Your task to perform on an android device: visit the assistant section in the google photos Image 0: 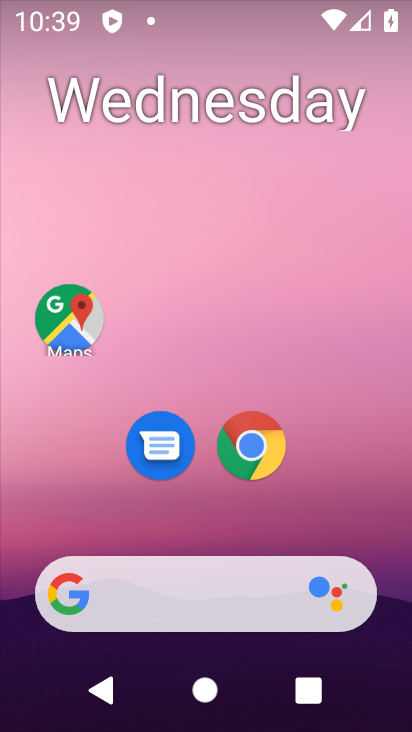
Step 0: press home button
Your task to perform on an android device: visit the assistant section in the google photos Image 1: 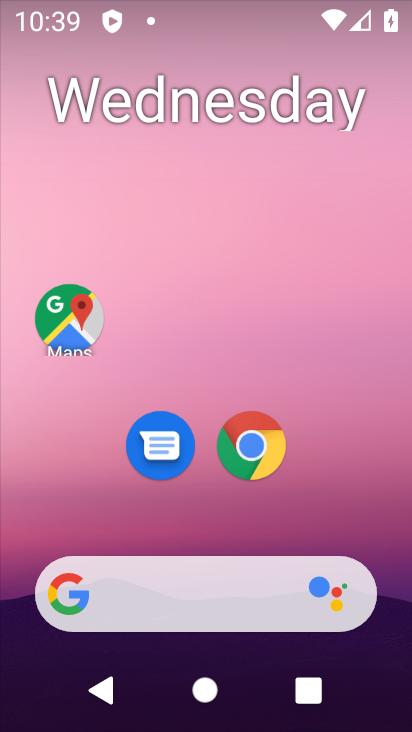
Step 1: drag from (321, 484) to (298, 120)
Your task to perform on an android device: visit the assistant section in the google photos Image 2: 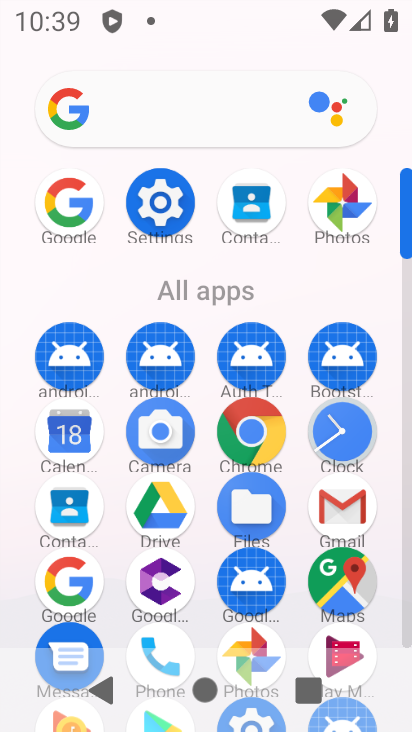
Step 2: click (327, 213)
Your task to perform on an android device: visit the assistant section in the google photos Image 3: 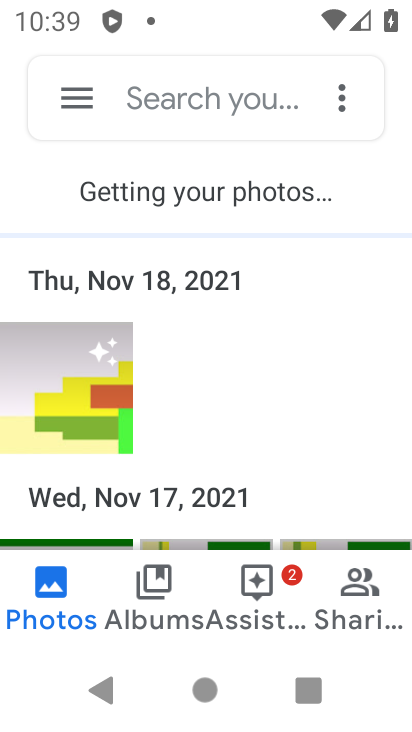
Step 3: click (270, 578)
Your task to perform on an android device: visit the assistant section in the google photos Image 4: 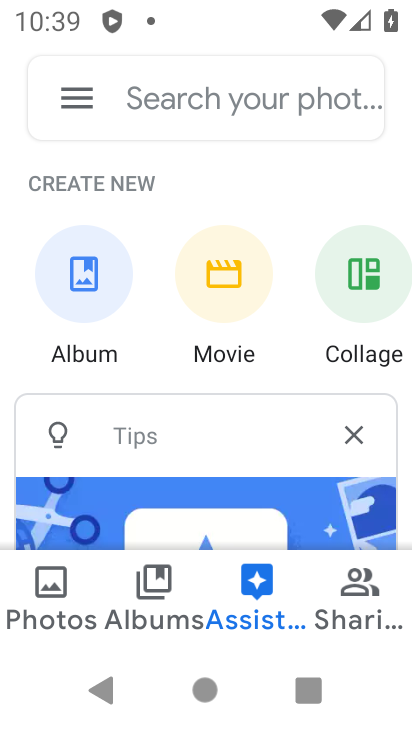
Step 4: task complete